Your task to perform on an android device: What's the weather today? Image 0: 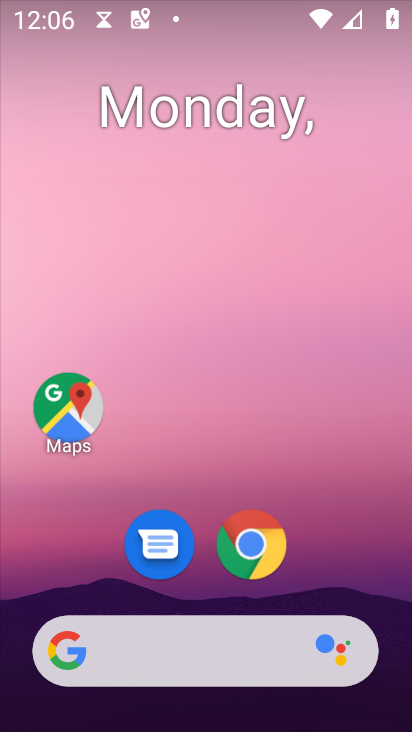
Step 0: click (254, 544)
Your task to perform on an android device: What's the weather today? Image 1: 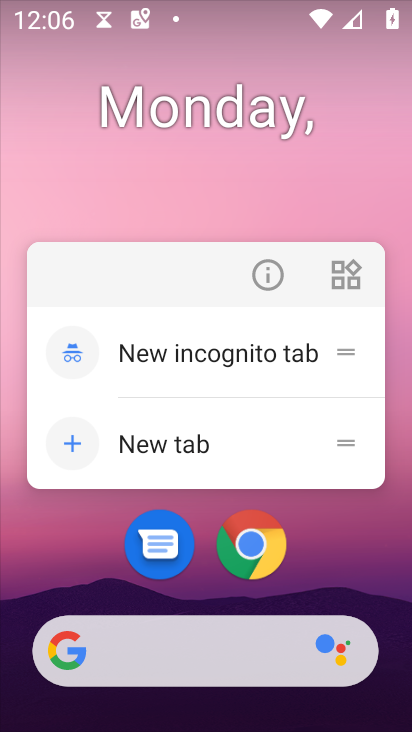
Step 1: click (216, 508)
Your task to perform on an android device: What's the weather today? Image 2: 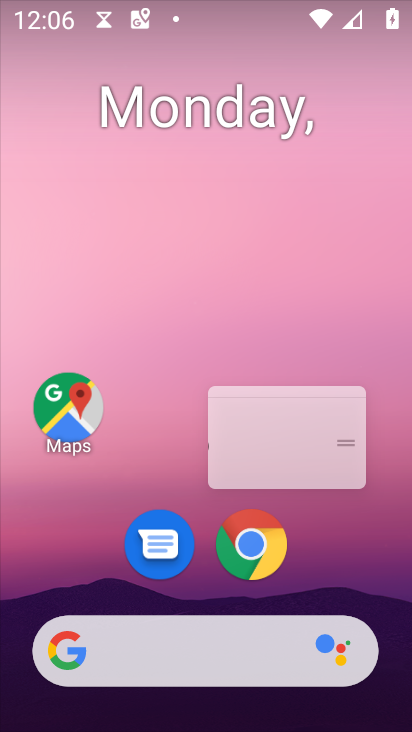
Step 2: click (242, 536)
Your task to perform on an android device: What's the weather today? Image 3: 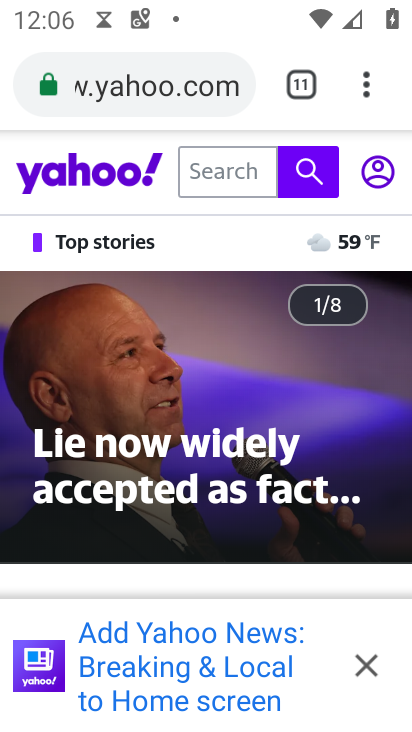
Step 3: click (349, 76)
Your task to perform on an android device: What's the weather today? Image 4: 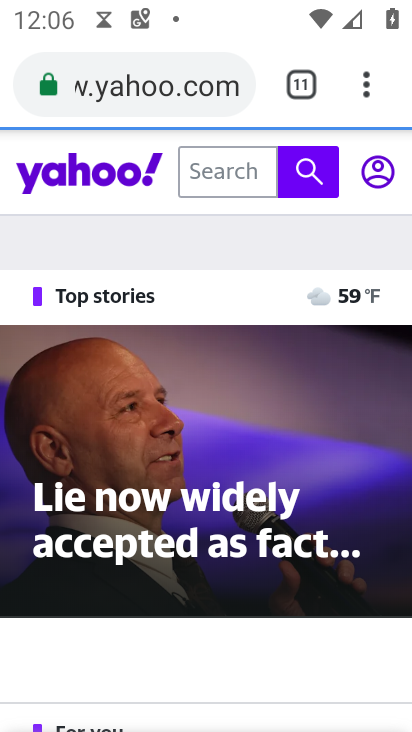
Step 4: click (357, 87)
Your task to perform on an android device: What's the weather today? Image 5: 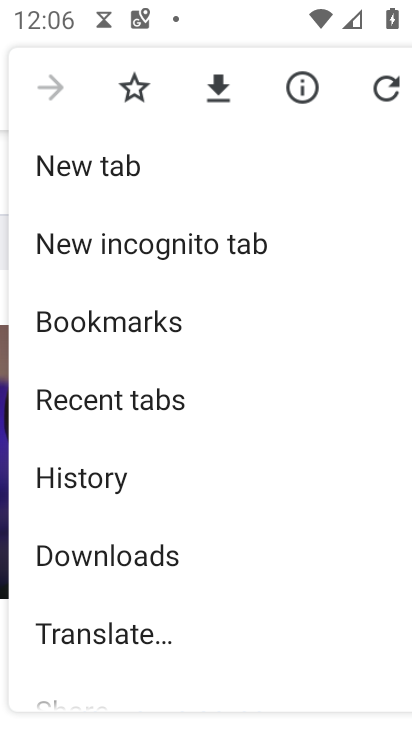
Step 5: click (152, 166)
Your task to perform on an android device: What's the weather today? Image 6: 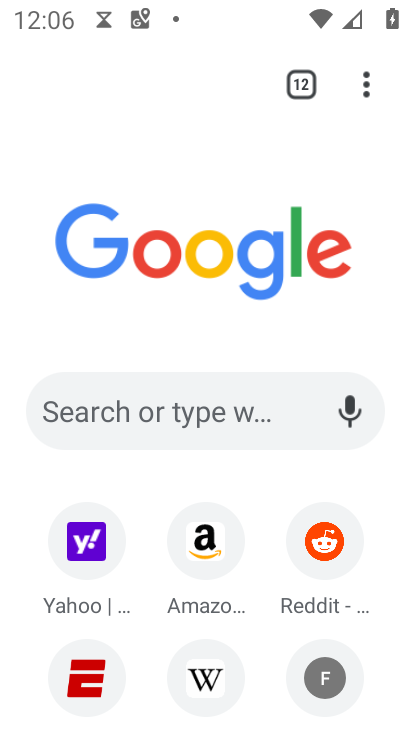
Step 6: click (136, 390)
Your task to perform on an android device: What's the weather today? Image 7: 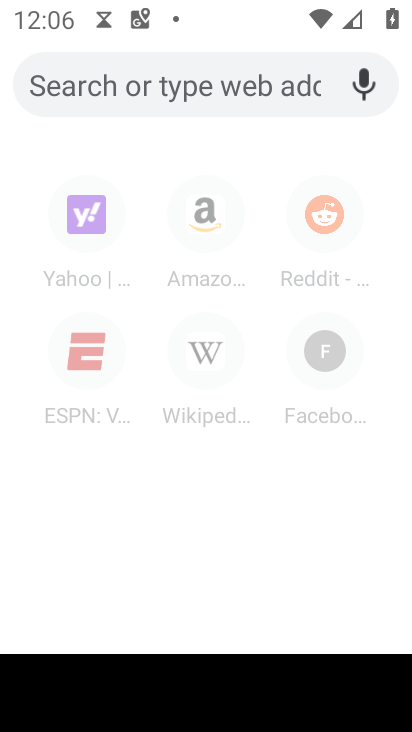
Step 7: type "ESPN.com"
Your task to perform on an android device: What's the weather today? Image 8: 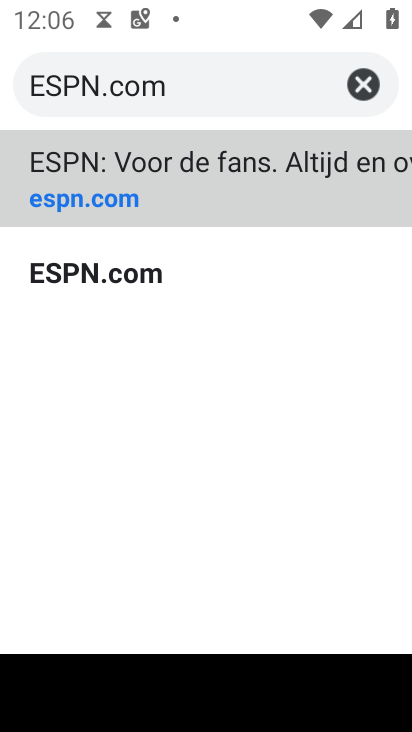
Step 8: click (190, 94)
Your task to perform on an android device: What's the weather today? Image 9: 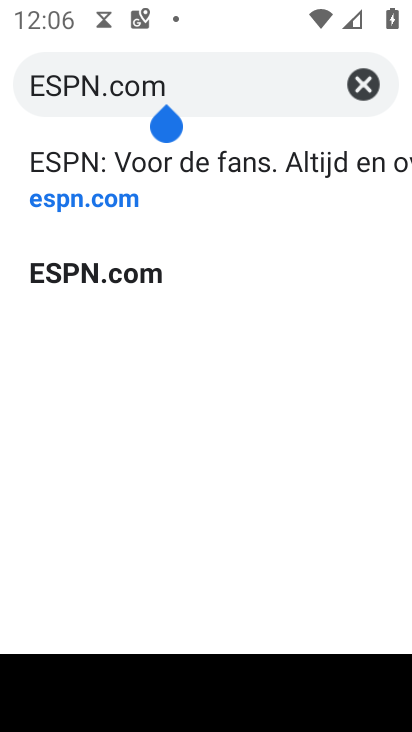
Step 9: click (361, 84)
Your task to perform on an android device: What's the weather today? Image 10: 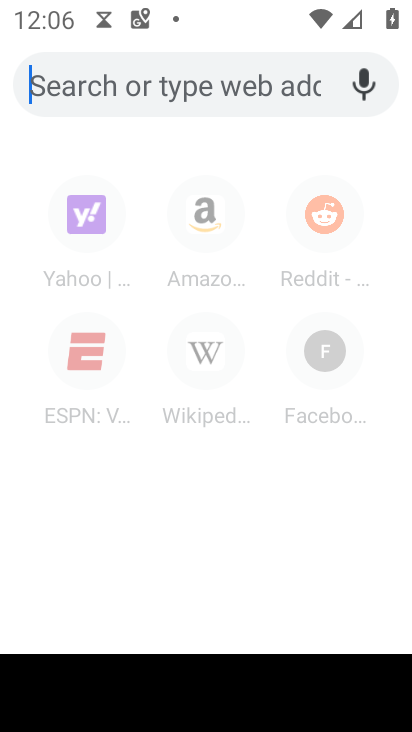
Step 10: click (152, 84)
Your task to perform on an android device: What's the weather today? Image 11: 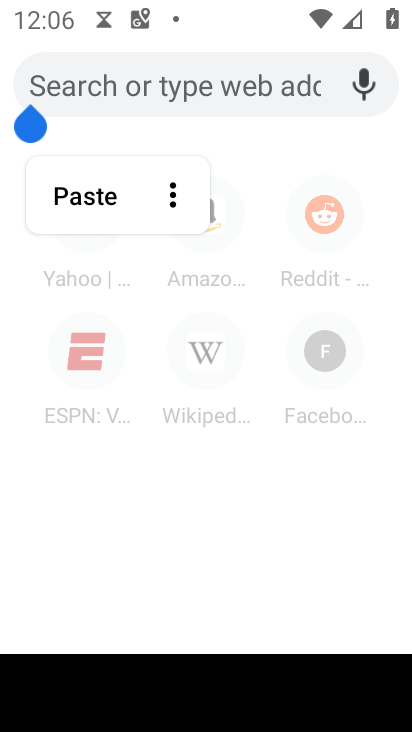
Step 11: type "What's the weather today?"
Your task to perform on an android device: What's the weather today? Image 12: 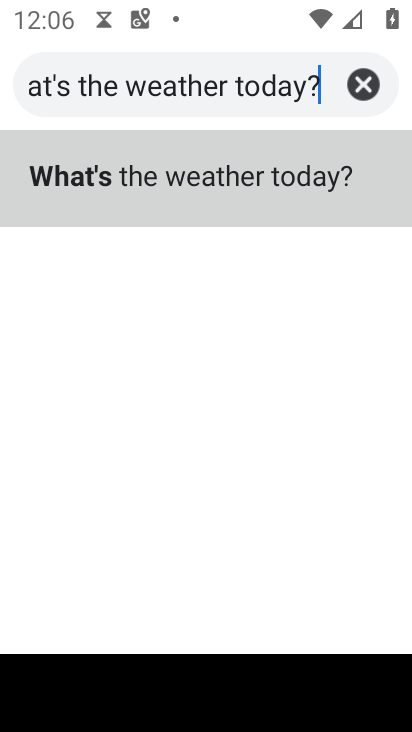
Step 12: click (120, 174)
Your task to perform on an android device: What's the weather today? Image 13: 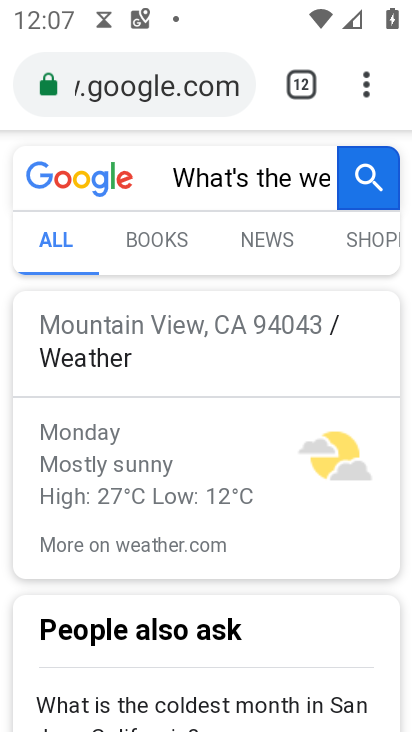
Step 13: task complete